Your task to perform on an android device: Search for sushi restaurants on Maps Image 0: 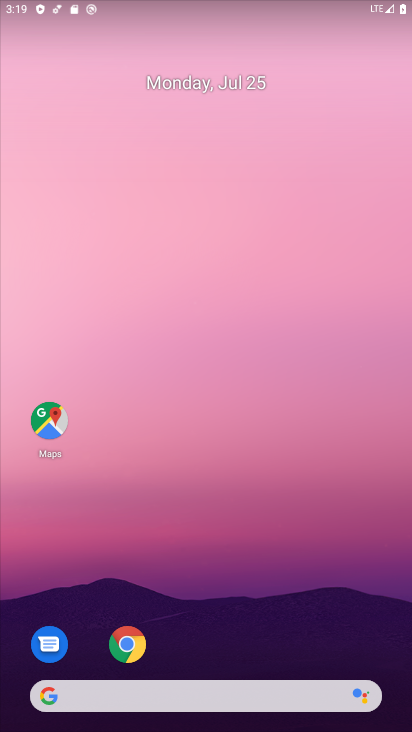
Step 0: drag from (259, 631) to (258, 84)
Your task to perform on an android device: Search for sushi restaurants on Maps Image 1: 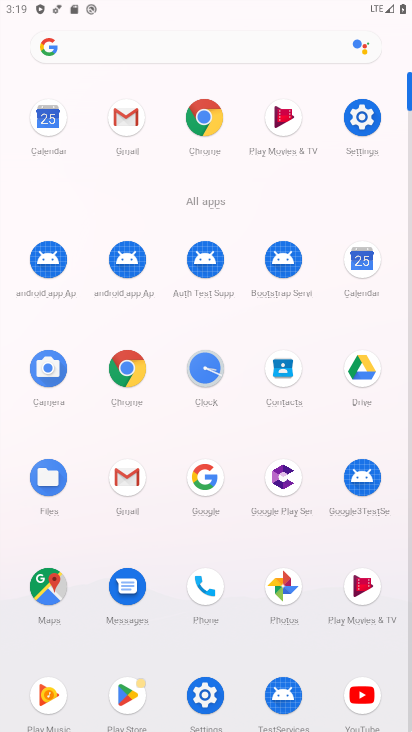
Step 1: click (50, 591)
Your task to perform on an android device: Search for sushi restaurants on Maps Image 2: 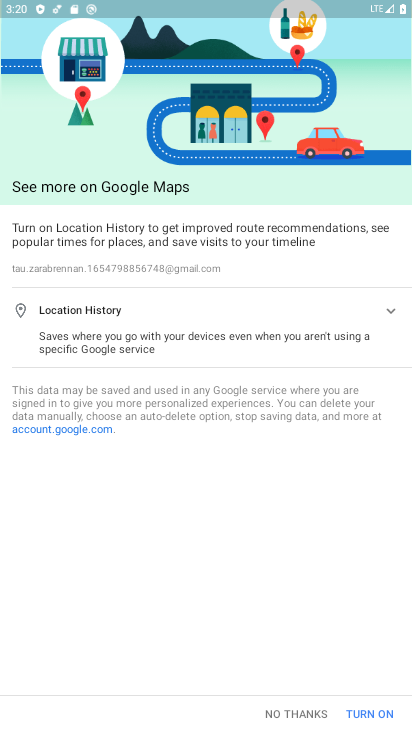
Step 2: click (313, 718)
Your task to perform on an android device: Search for sushi restaurants on Maps Image 3: 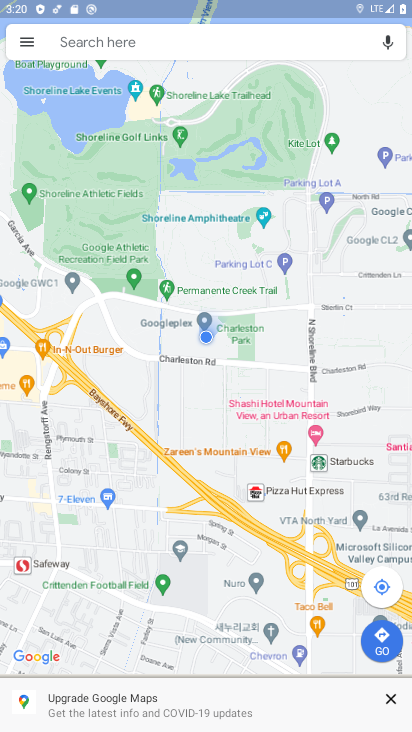
Step 3: click (126, 49)
Your task to perform on an android device: Search for sushi restaurants on Maps Image 4: 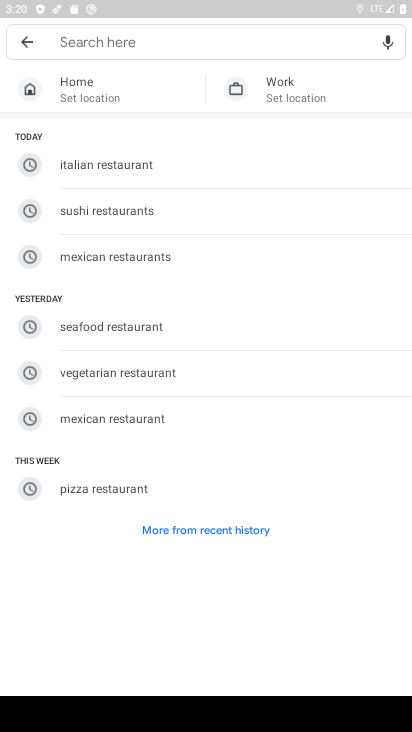
Step 4: click (274, 215)
Your task to perform on an android device: Search for sushi restaurants on Maps Image 5: 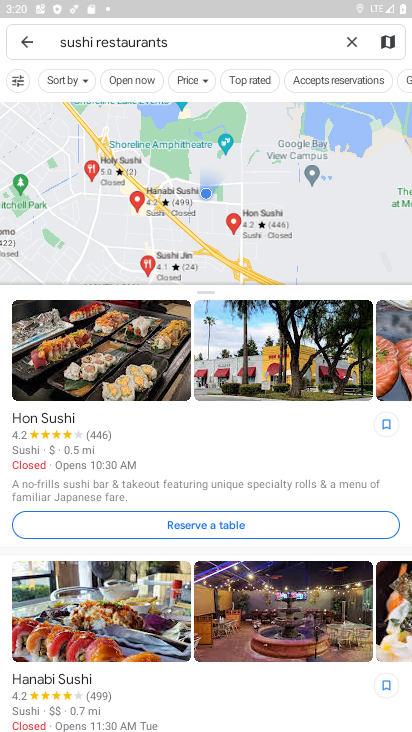
Step 5: task complete